Your task to perform on an android device: Open notification settings Image 0: 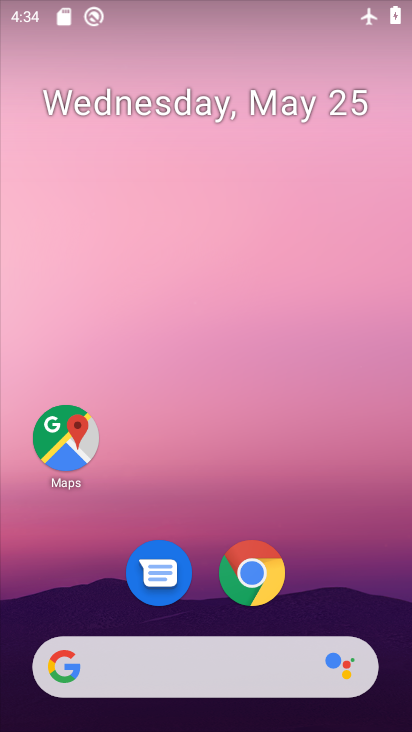
Step 0: drag from (203, 715) to (202, 62)
Your task to perform on an android device: Open notification settings Image 1: 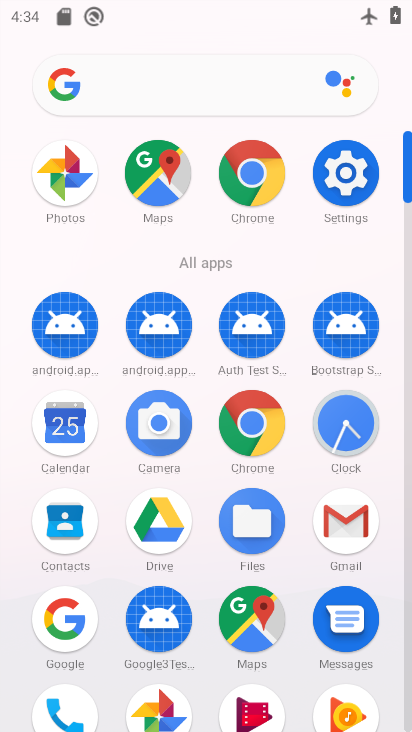
Step 1: click (342, 181)
Your task to perform on an android device: Open notification settings Image 2: 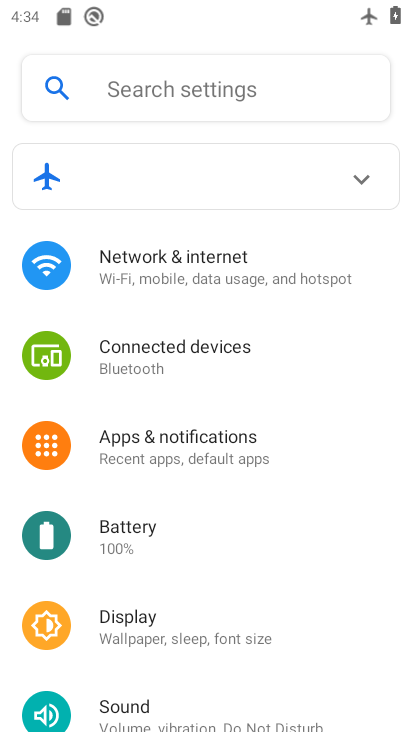
Step 2: click (180, 446)
Your task to perform on an android device: Open notification settings Image 3: 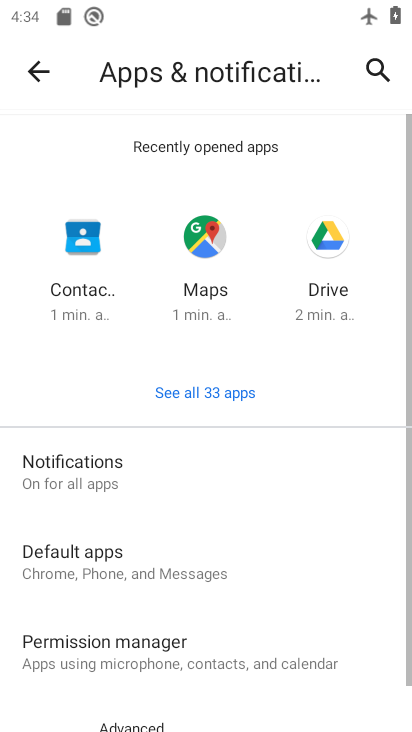
Step 3: click (57, 478)
Your task to perform on an android device: Open notification settings Image 4: 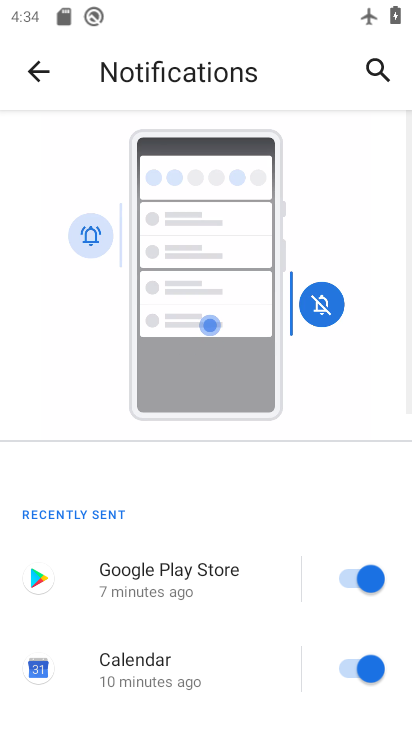
Step 4: task complete